Your task to perform on an android device: change notifications settings Image 0: 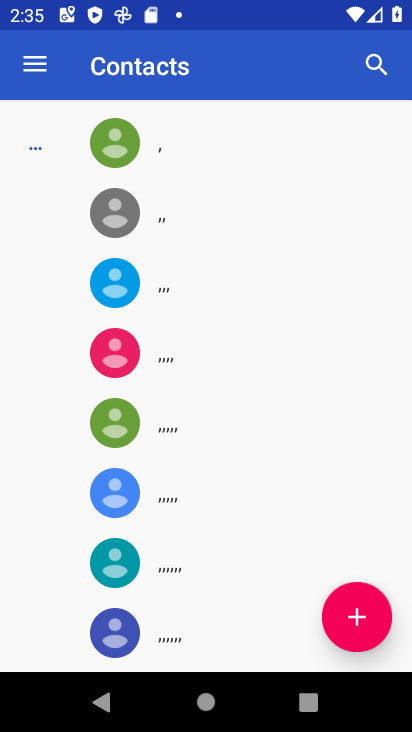
Step 0: press home button
Your task to perform on an android device: change notifications settings Image 1: 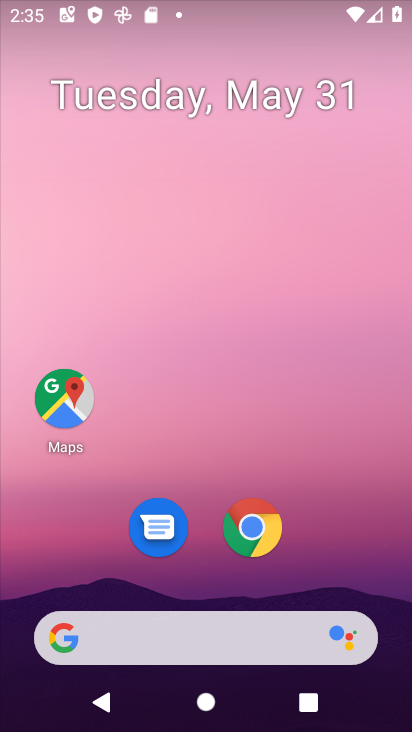
Step 1: drag from (365, 565) to (358, 57)
Your task to perform on an android device: change notifications settings Image 2: 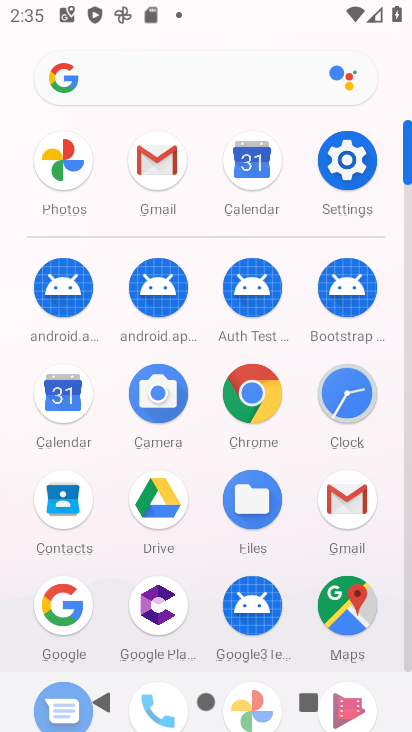
Step 2: click (352, 171)
Your task to perform on an android device: change notifications settings Image 3: 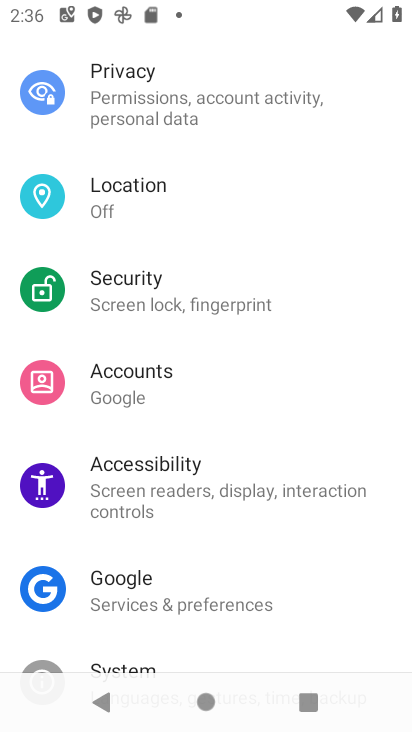
Step 3: drag from (243, 208) to (230, 638)
Your task to perform on an android device: change notifications settings Image 4: 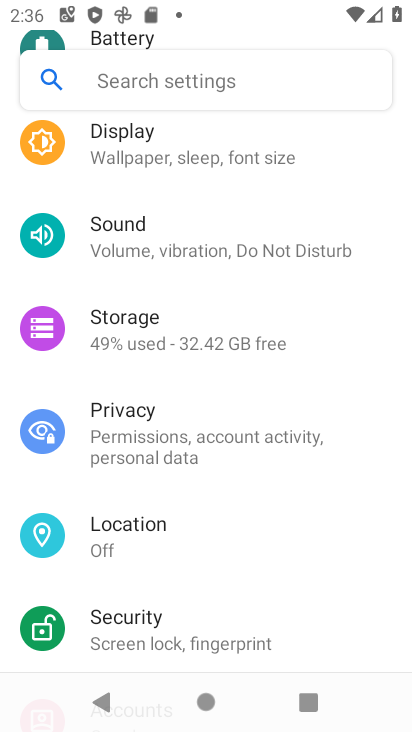
Step 4: drag from (218, 182) to (242, 623)
Your task to perform on an android device: change notifications settings Image 5: 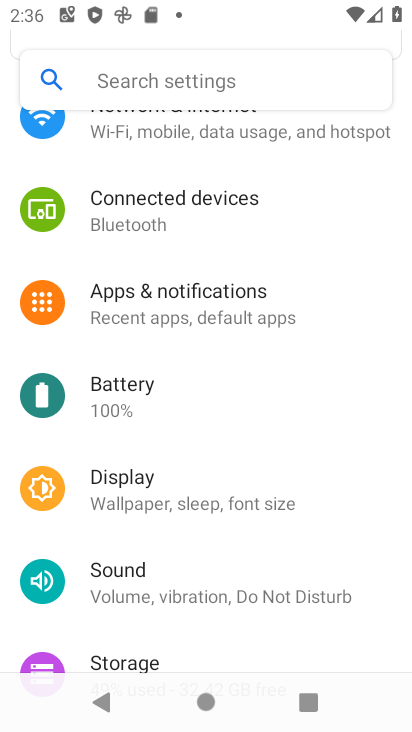
Step 5: click (196, 306)
Your task to perform on an android device: change notifications settings Image 6: 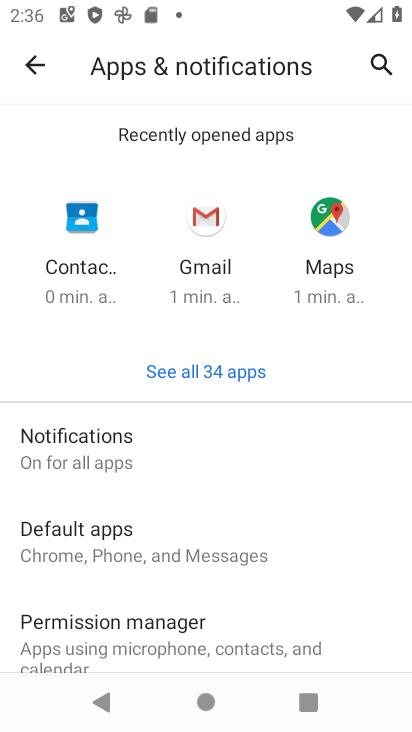
Step 6: click (57, 484)
Your task to perform on an android device: change notifications settings Image 7: 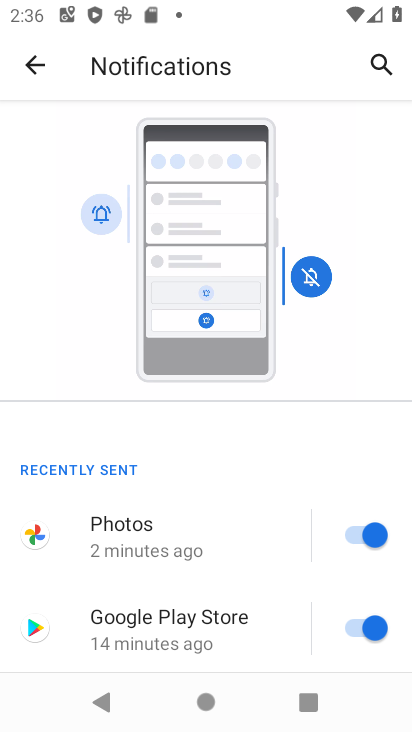
Step 7: drag from (212, 599) to (179, 159)
Your task to perform on an android device: change notifications settings Image 8: 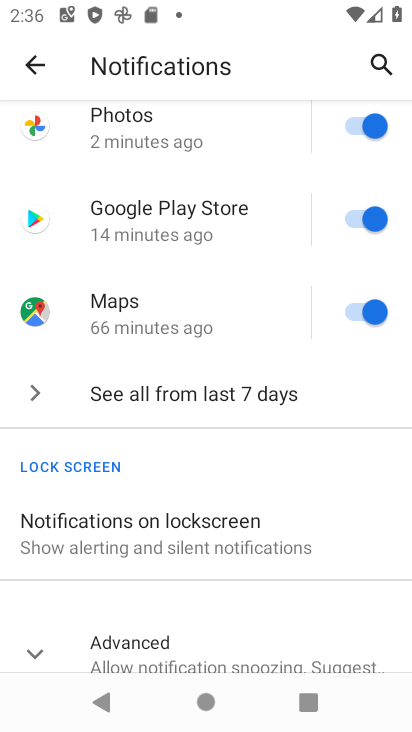
Step 8: drag from (205, 607) to (186, 205)
Your task to perform on an android device: change notifications settings Image 9: 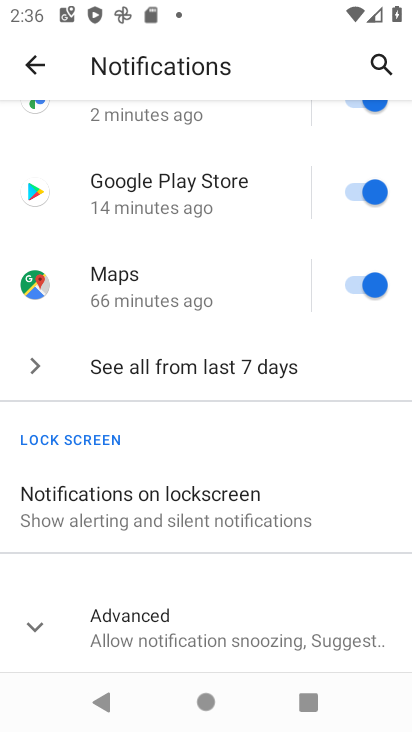
Step 9: click (163, 619)
Your task to perform on an android device: change notifications settings Image 10: 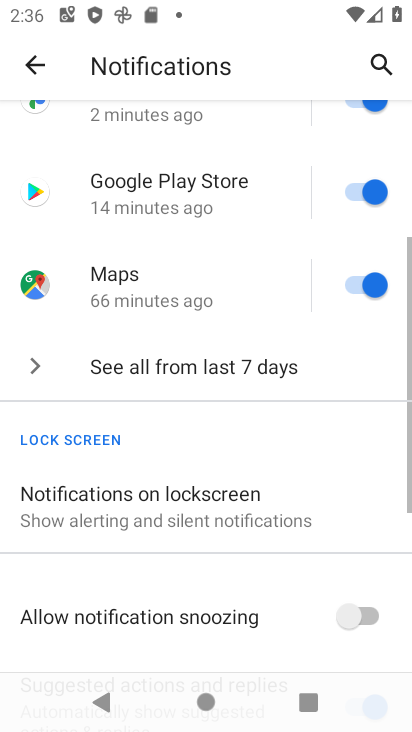
Step 10: drag from (194, 642) to (185, 276)
Your task to perform on an android device: change notifications settings Image 11: 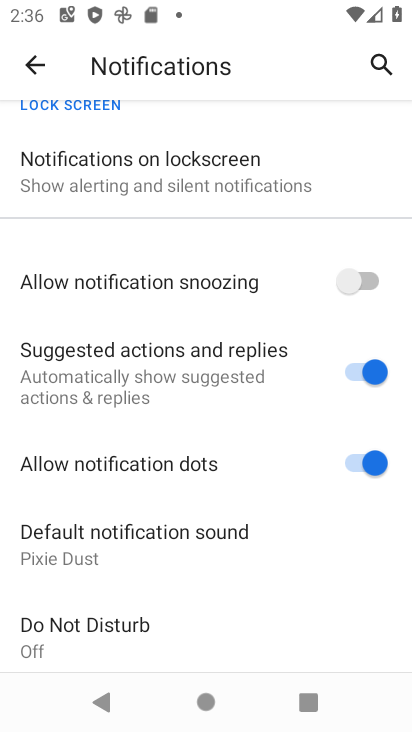
Step 11: drag from (205, 628) to (174, 283)
Your task to perform on an android device: change notifications settings Image 12: 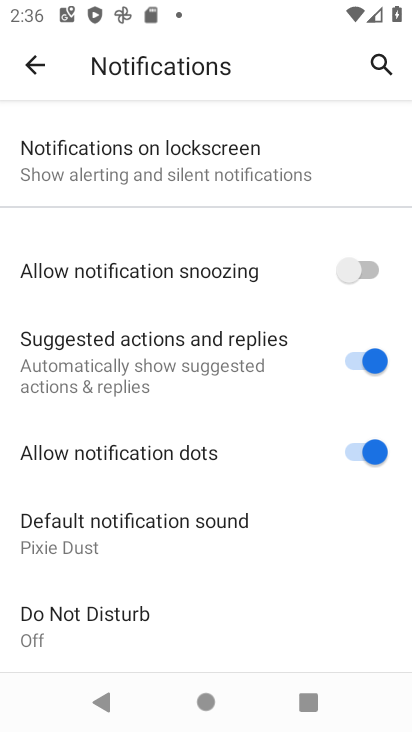
Step 12: drag from (172, 608) to (174, 362)
Your task to perform on an android device: change notifications settings Image 13: 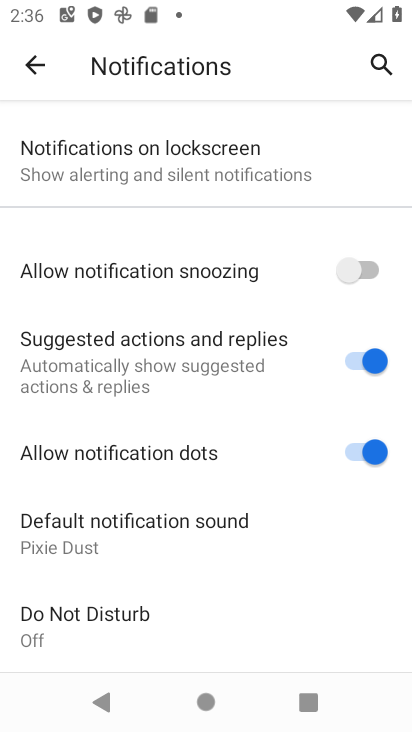
Step 13: drag from (181, 304) to (223, 608)
Your task to perform on an android device: change notifications settings Image 14: 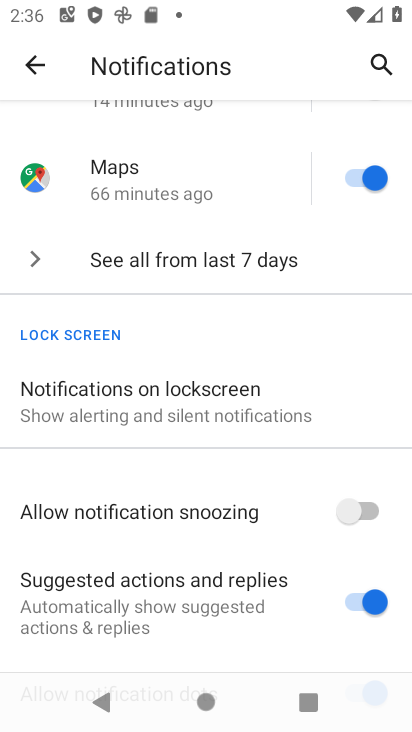
Step 14: drag from (209, 200) to (232, 643)
Your task to perform on an android device: change notifications settings Image 15: 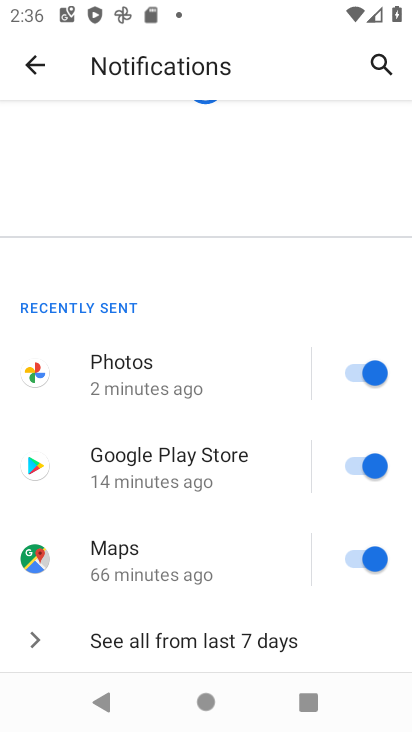
Step 15: click (367, 232)
Your task to perform on an android device: change notifications settings Image 16: 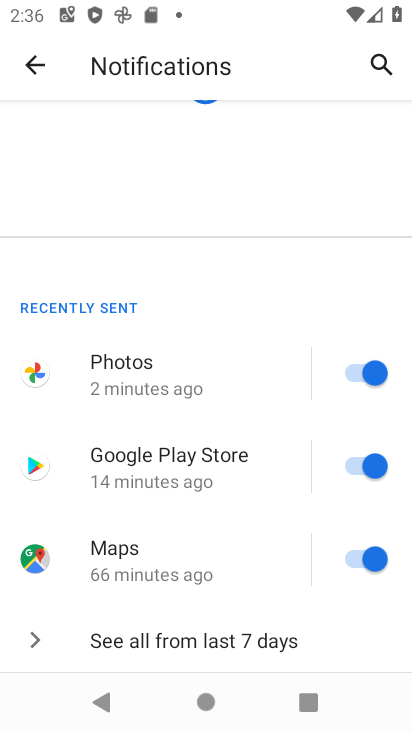
Step 16: task complete